Your task to perform on an android device: Open sound settings Image 0: 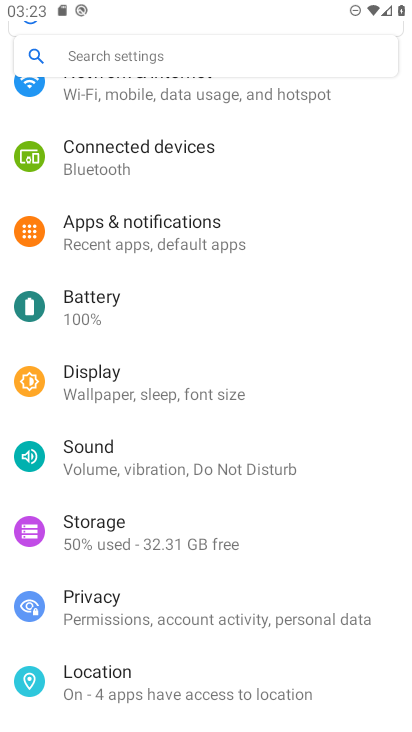
Step 0: press home button
Your task to perform on an android device: Open sound settings Image 1: 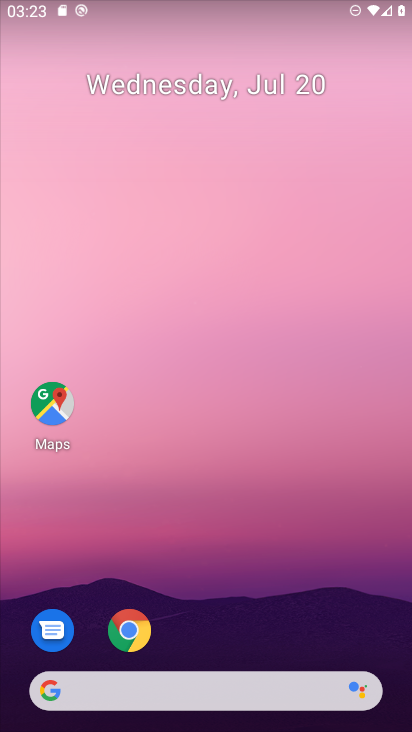
Step 1: drag from (309, 602) to (336, 191)
Your task to perform on an android device: Open sound settings Image 2: 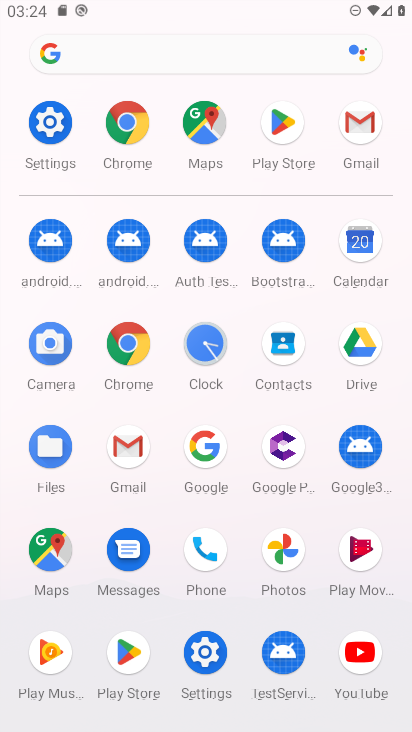
Step 2: click (211, 643)
Your task to perform on an android device: Open sound settings Image 3: 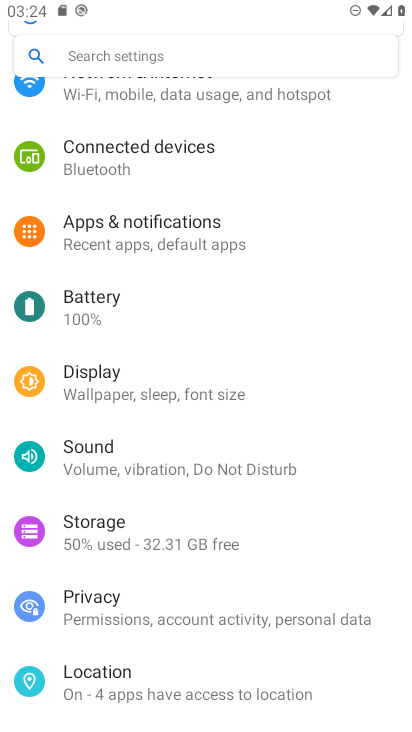
Step 3: click (294, 468)
Your task to perform on an android device: Open sound settings Image 4: 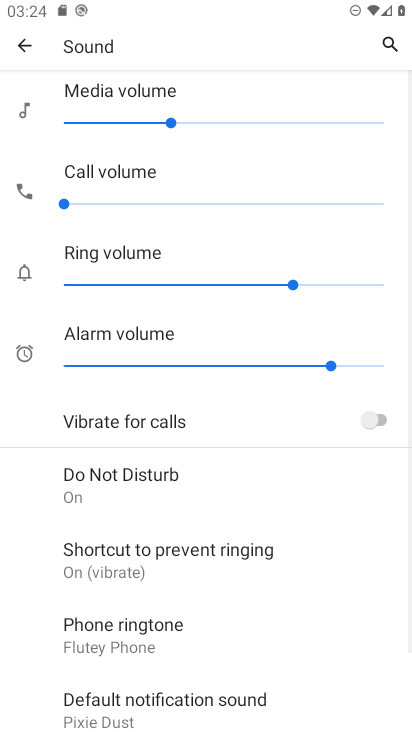
Step 4: task complete